Your task to perform on an android device: Search for pizza restaurants on Maps Image 0: 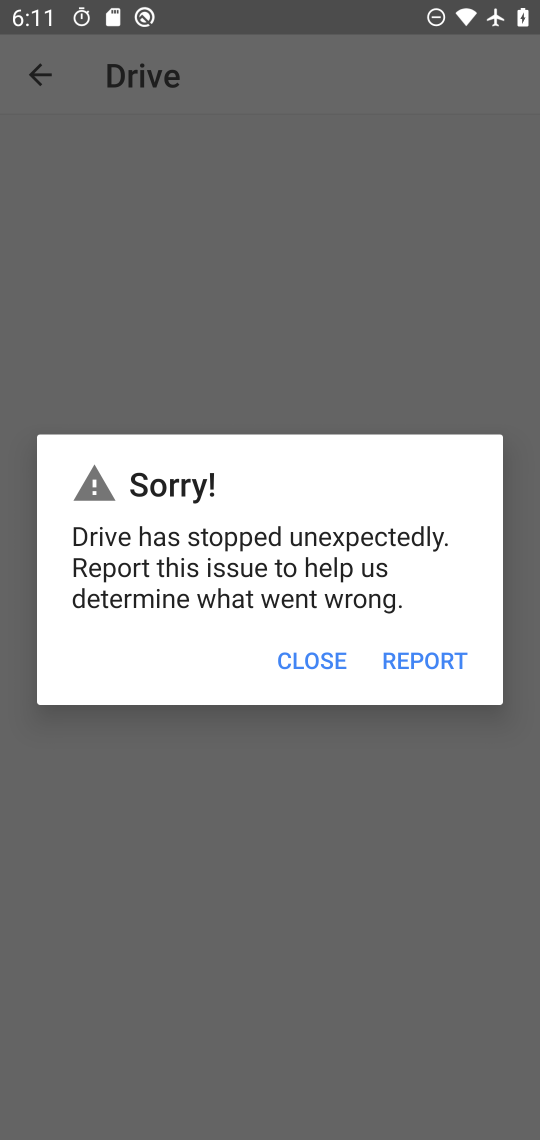
Step 0: press home button
Your task to perform on an android device: Search for pizza restaurants on Maps Image 1: 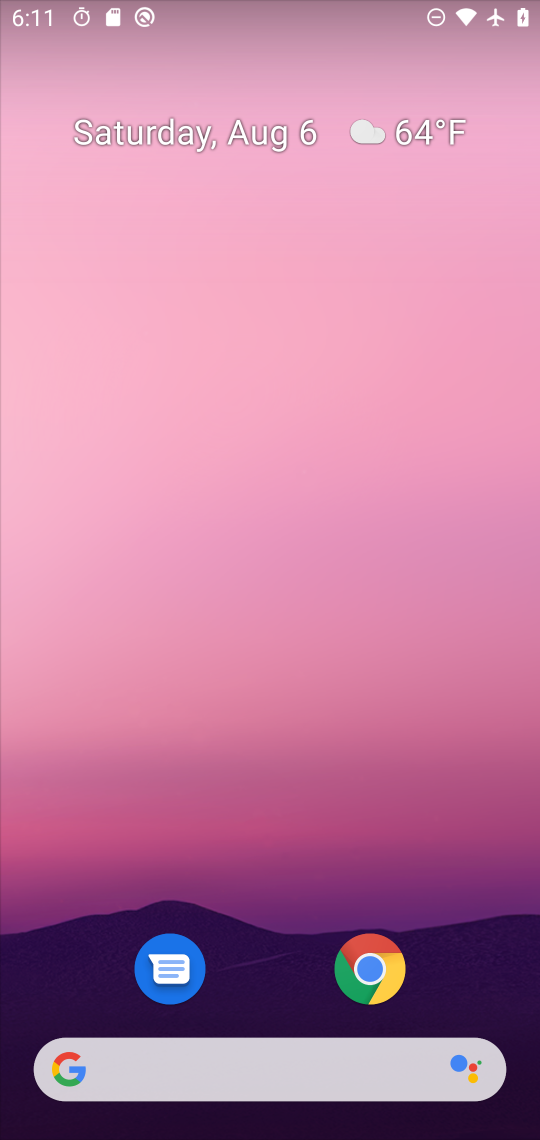
Step 1: drag from (213, 791) to (130, 82)
Your task to perform on an android device: Search for pizza restaurants on Maps Image 2: 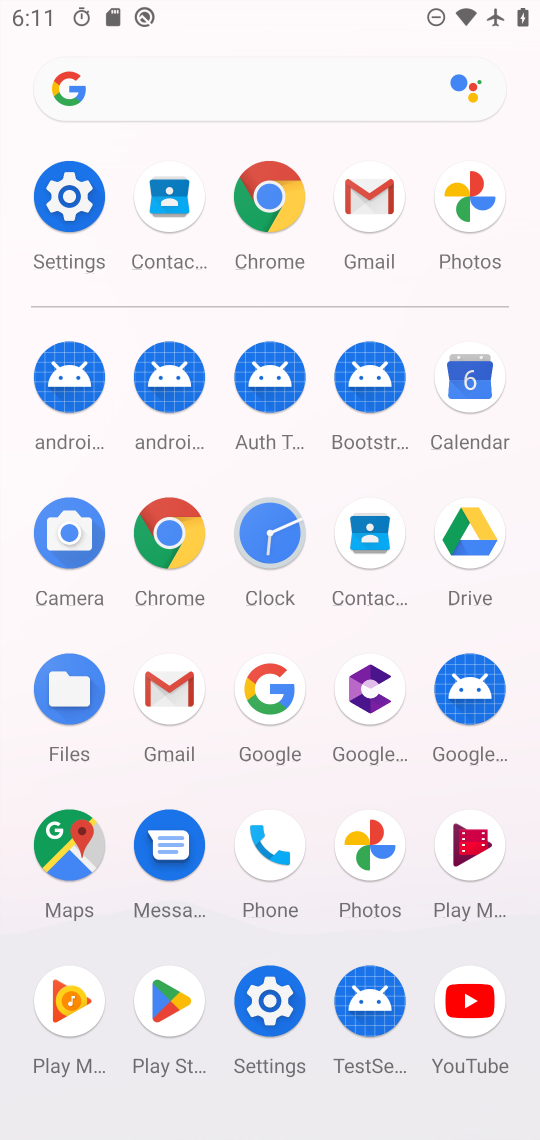
Step 2: click (67, 851)
Your task to perform on an android device: Search for pizza restaurants on Maps Image 3: 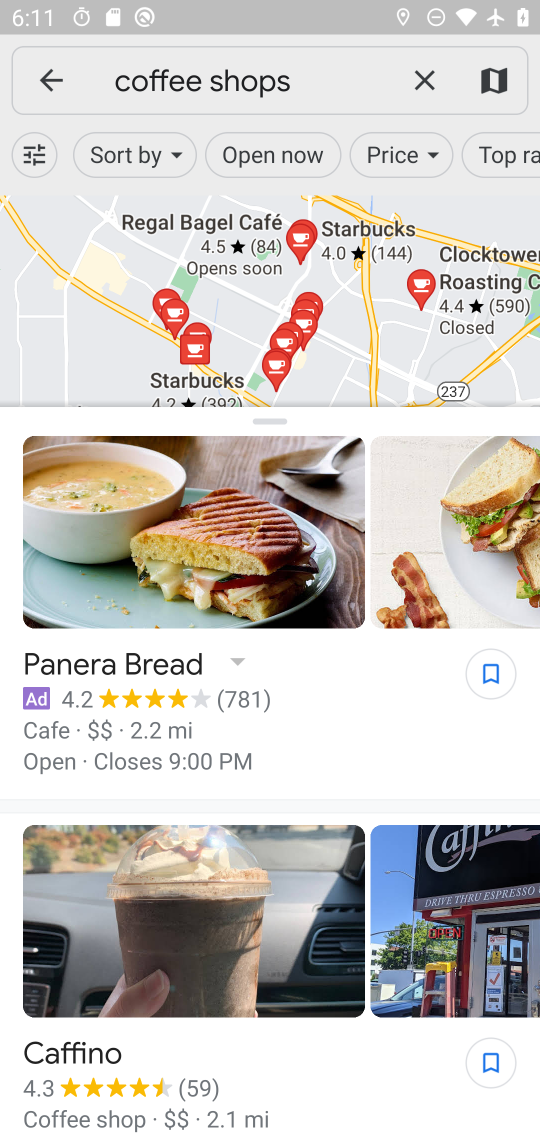
Step 3: click (41, 86)
Your task to perform on an android device: Search for pizza restaurants on Maps Image 4: 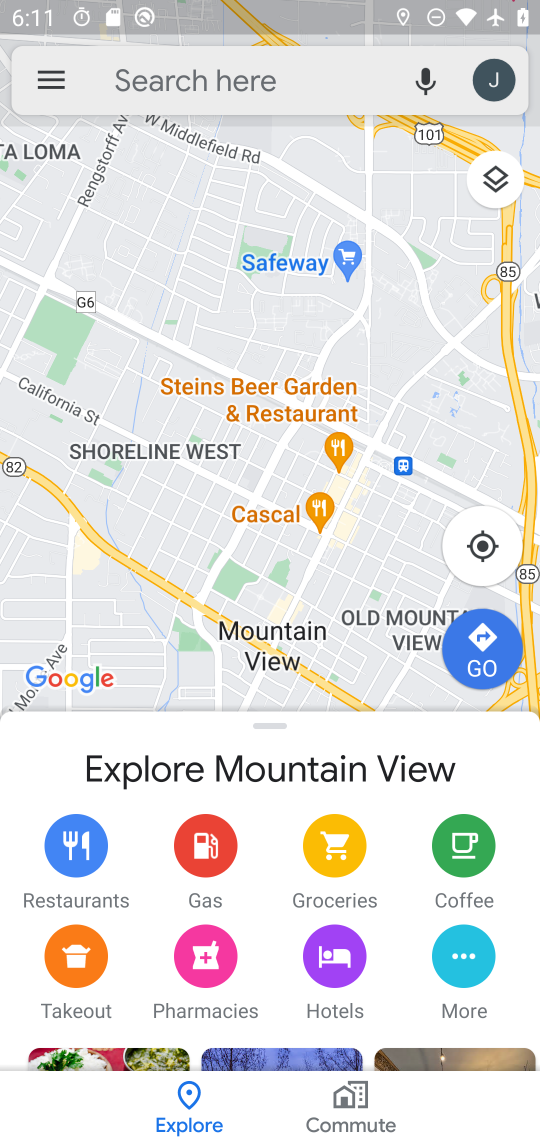
Step 4: click (205, 55)
Your task to perform on an android device: Search for pizza restaurants on Maps Image 5: 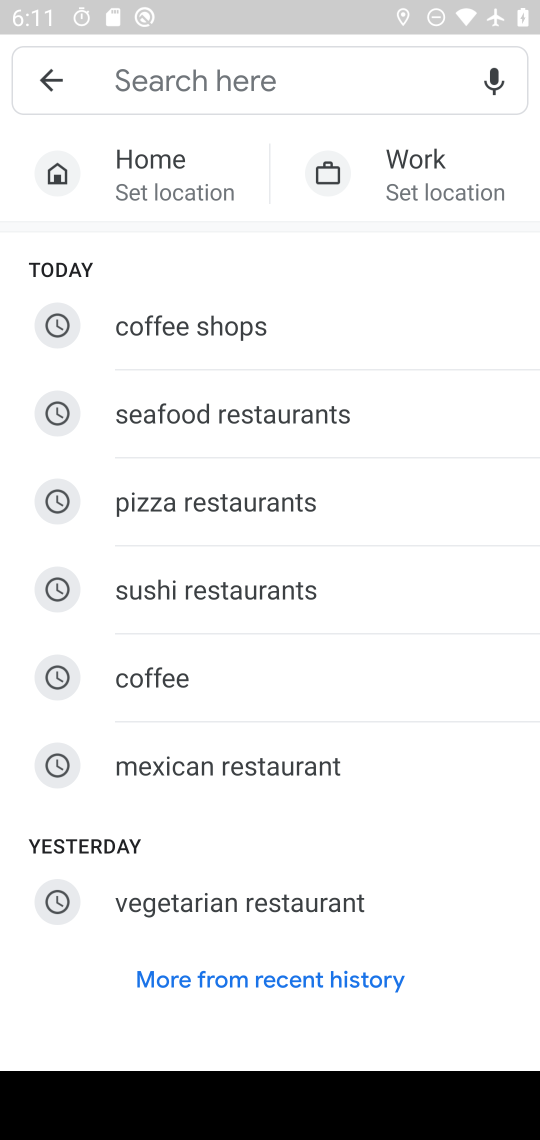
Step 5: click (257, 505)
Your task to perform on an android device: Search for pizza restaurants on Maps Image 6: 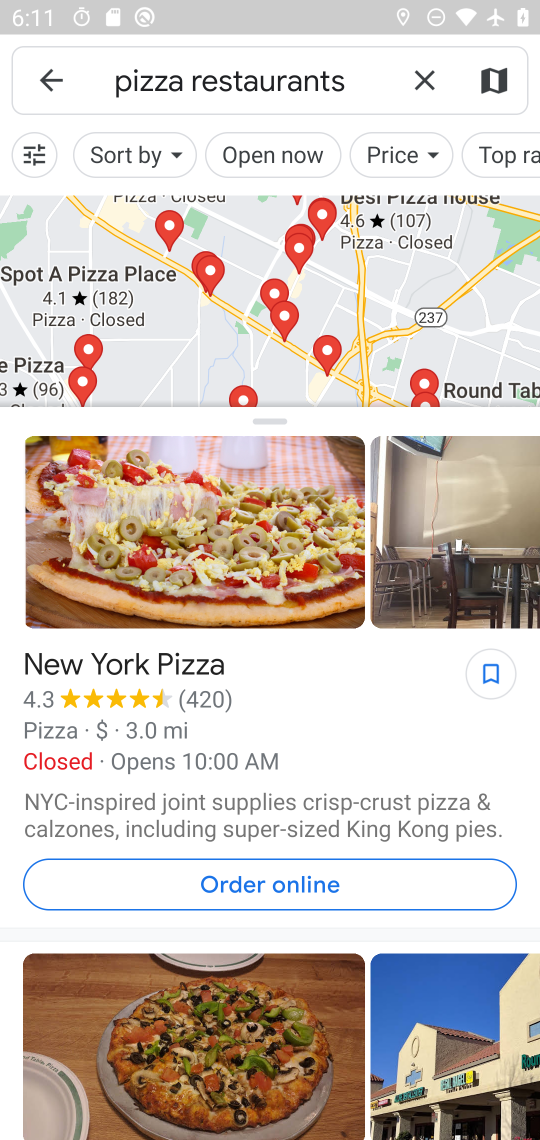
Step 6: task complete